Your task to perform on an android device: Open the phone app and click the voicemail tab. Image 0: 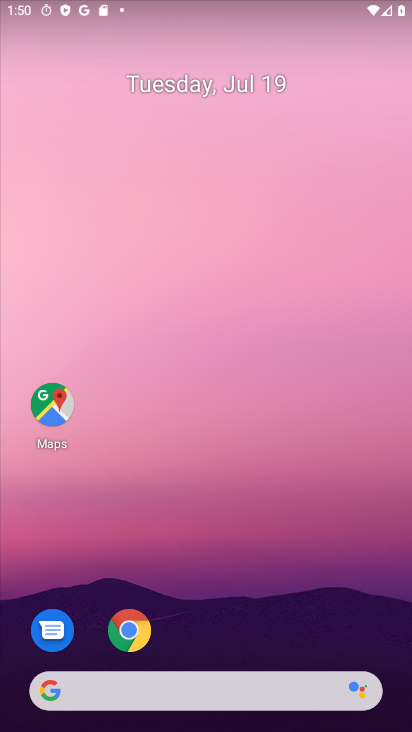
Step 0: drag from (325, 646) to (301, 235)
Your task to perform on an android device: Open the phone app and click the voicemail tab. Image 1: 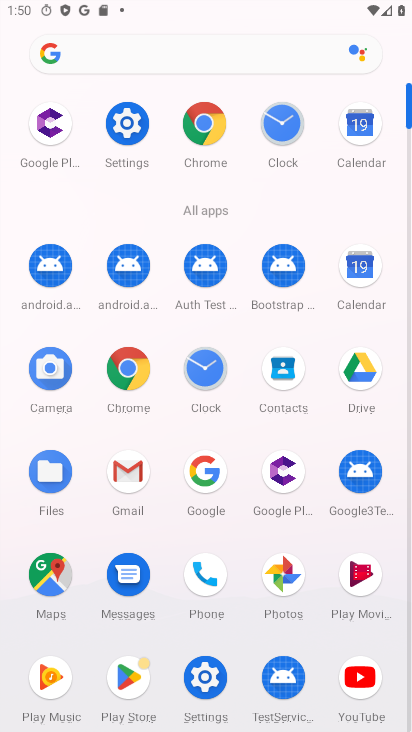
Step 1: click (197, 577)
Your task to perform on an android device: Open the phone app and click the voicemail tab. Image 2: 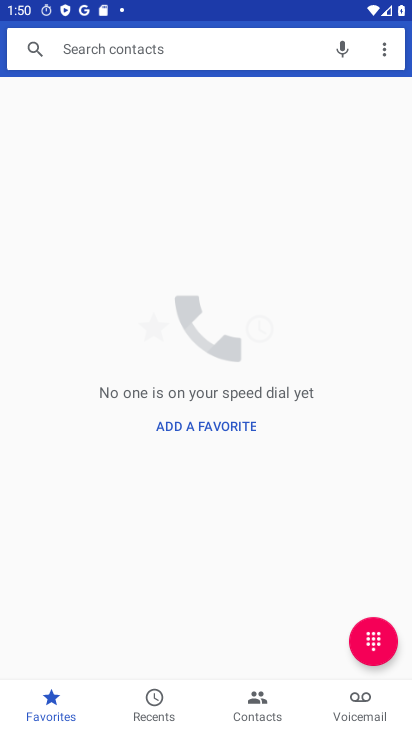
Step 2: click (382, 705)
Your task to perform on an android device: Open the phone app and click the voicemail tab. Image 3: 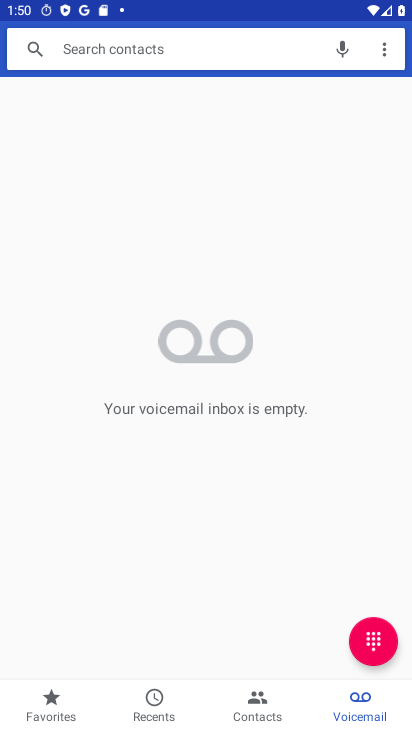
Step 3: task complete